Your task to perform on an android device: allow cookies in the chrome app Image 0: 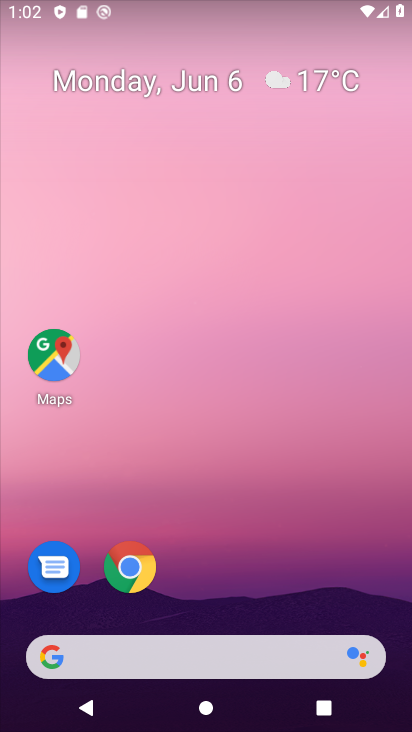
Step 0: click (132, 579)
Your task to perform on an android device: allow cookies in the chrome app Image 1: 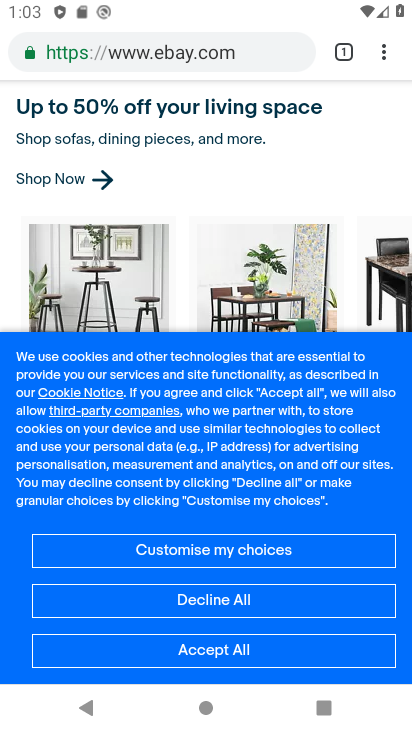
Step 1: click (384, 51)
Your task to perform on an android device: allow cookies in the chrome app Image 2: 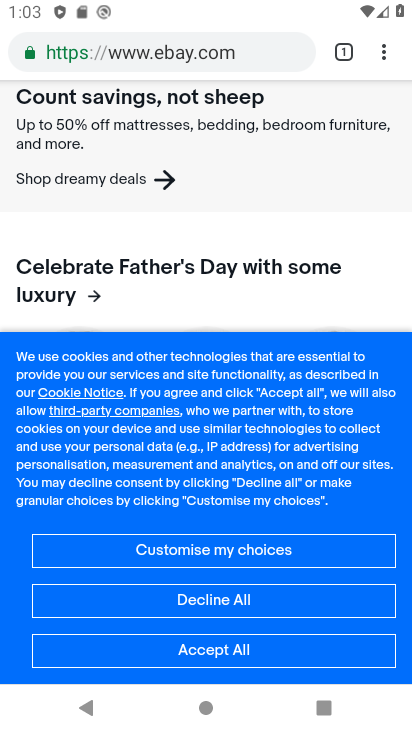
Step 2: click (384, 53)
Your task to perform on an android device: allow cookies in the chrome app Image 3: 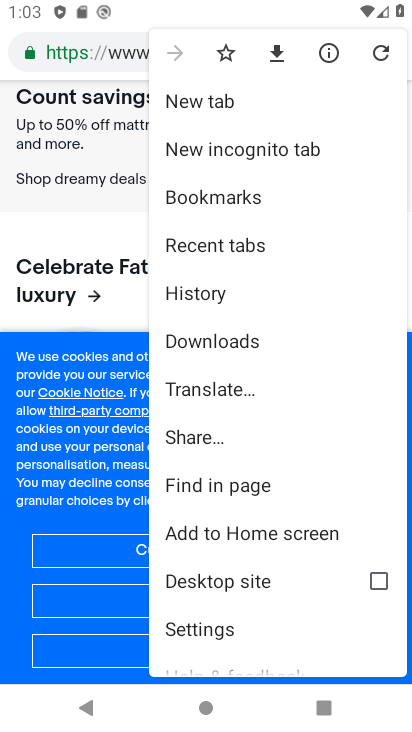
Step 3: click (243, 641)
Your task to perform on an android device: allow cookies in the chrome app Image 4: 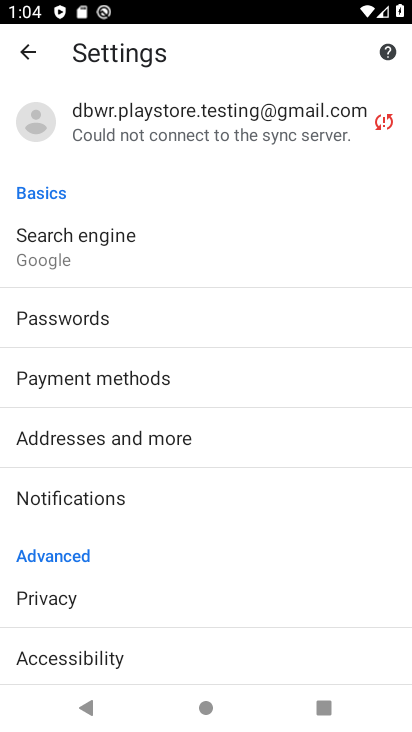
Step 4: drag from (195, 576) to (283, 25)
Your task to perform on an android device: allow cookies in the chrome app Image 5: 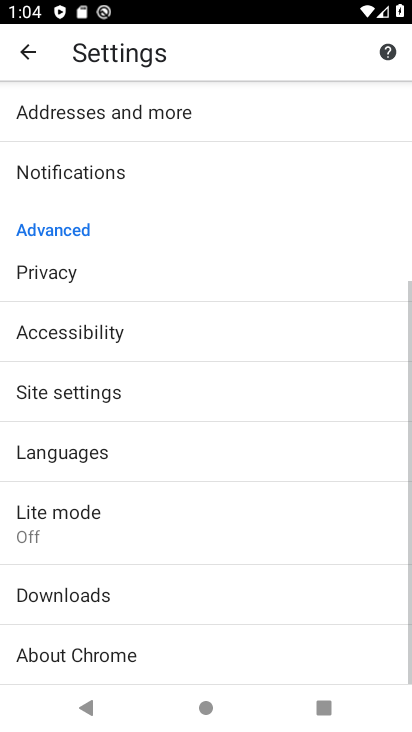
Step 5: click (144, 393)
Your task to perform on an android device: allow cookies in the chrome app Image 6: 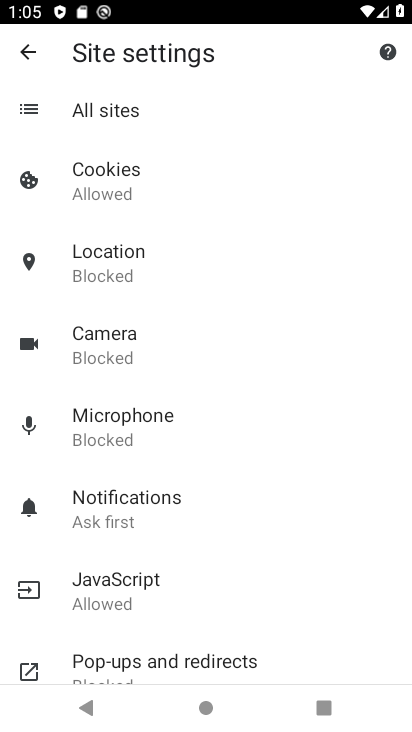
Step 6: click (153, 187)
Your task to perform on an android device: allow cookies in the chrome app Image 7: 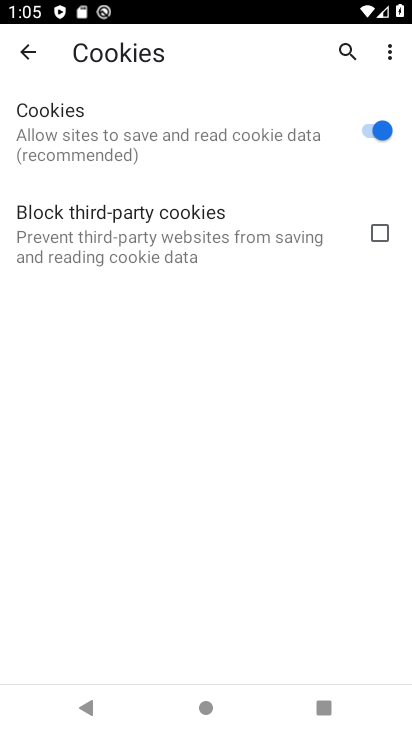
Step 7: task complete